Your task to perform on an android device: Show me the alarms in the clock app Image 0: 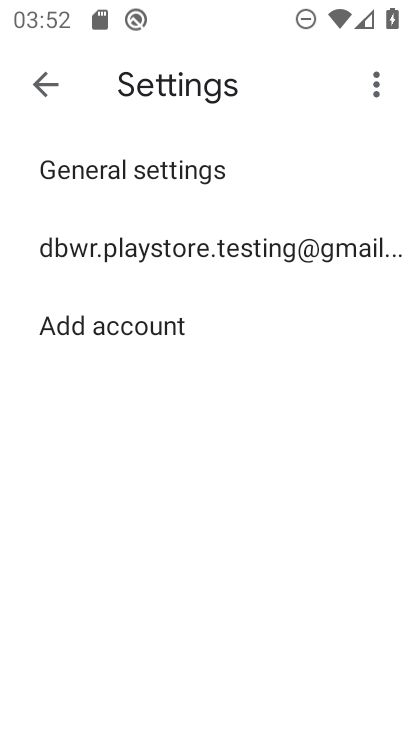
Step 0: press home button
Your task to perform on an android device: Show me the alarms in the clock app Image 1: 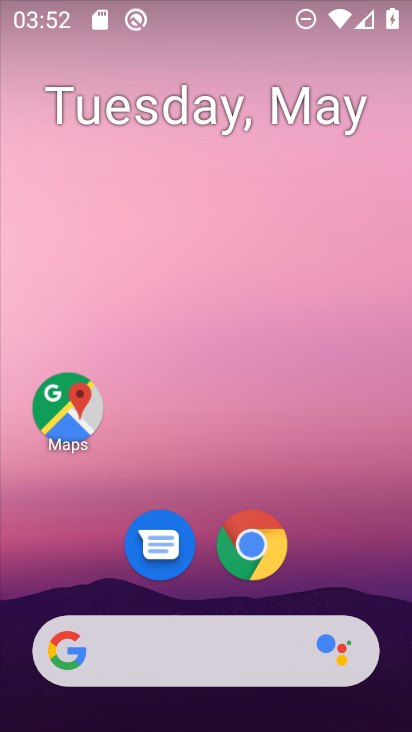
Step 1: drag from (385, 612) to (328, 122)
Your task to perform on an android device: Show me the alarms in the clock app Image 2: 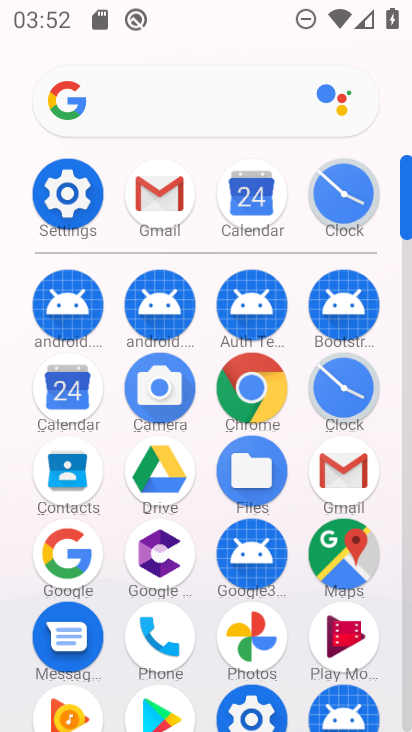
Step 2: click (342, 385)
Your task to perform on an android device: Show me the alarms in the clock app Image 3: 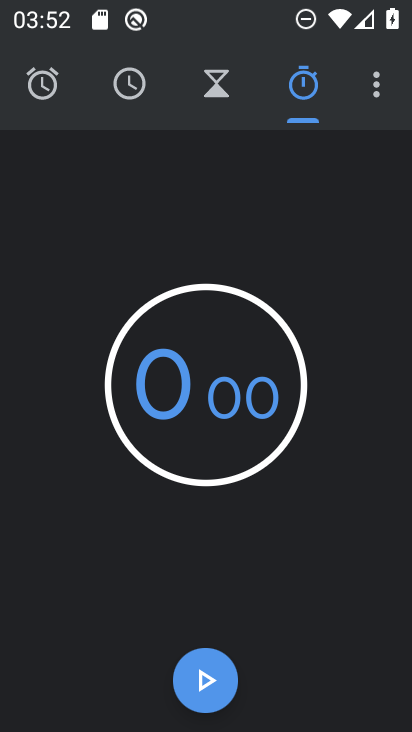
Step 3: click (45, 86)
Your task to perform on an android device: Show me the alarms in the clock app Image 4: 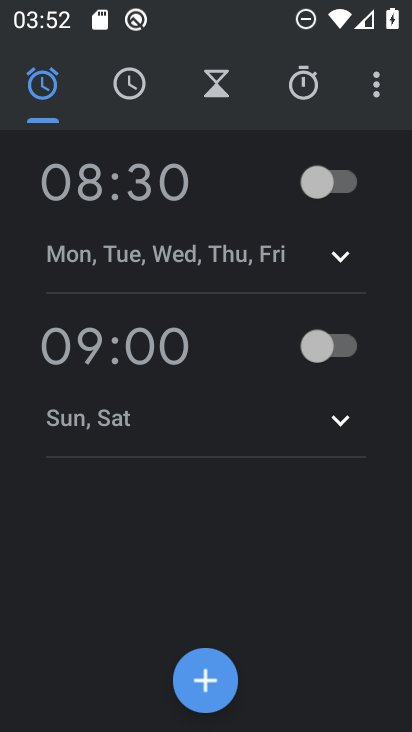
Step 4: task complete